Your task to perform on an android device: open chrome and create a bookmark for the current page Image 0: 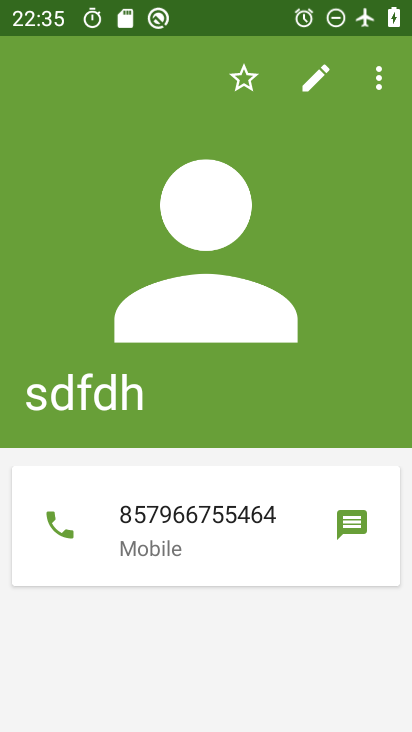
Step 0: press home button
Your task to perform on an android device: open chrome and create a bookmark for the current page Image 1: 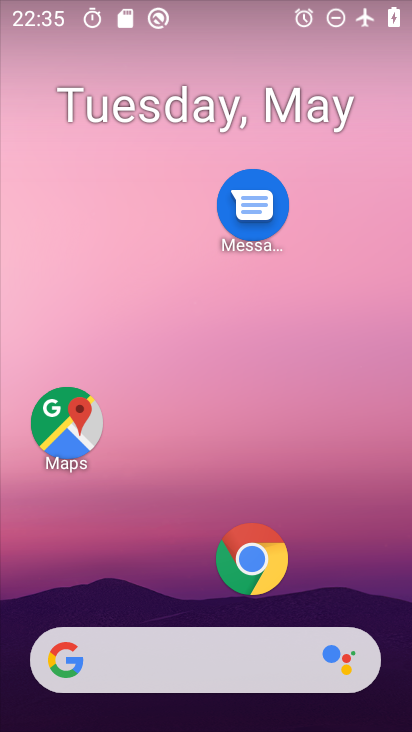
Step 1: click (232, 545)
Your task to perform on an android device: open chrome and create a bookmark for the current page Image 2: 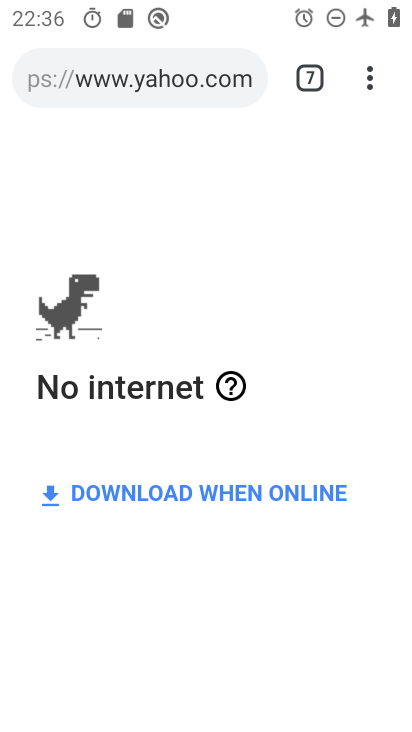
Step 2: click (373, 84)
Your task to perform on an android device: open chrome and create a bookmark for the current page Image 3: 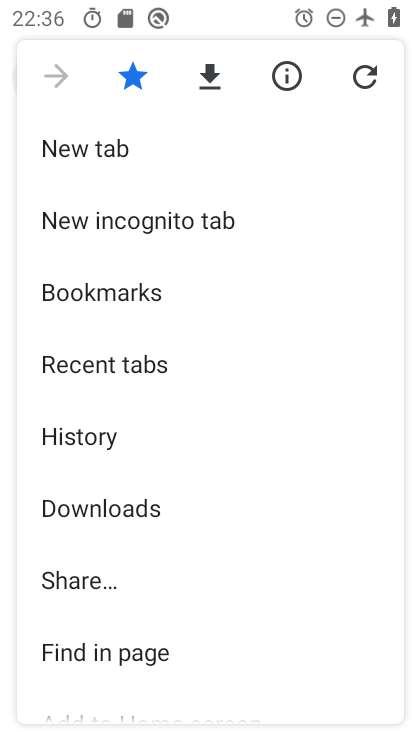
Step 3: task complete